Your task to perform on an android device: Open Reddit.com Image 0: 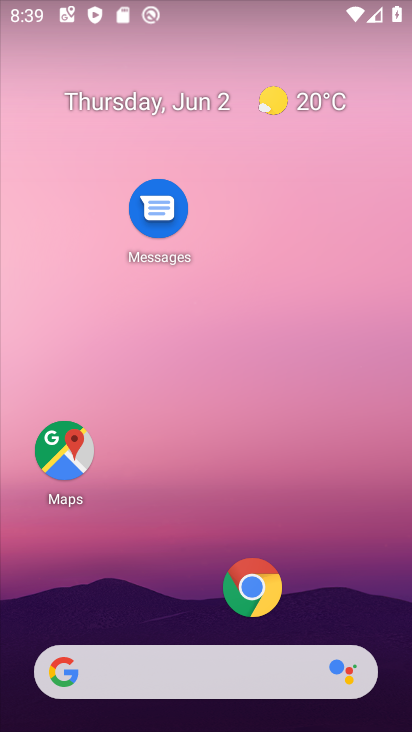
Step 0: click (254, 579)
Your task to perform on an android device: Open Reddit.com Image 1: 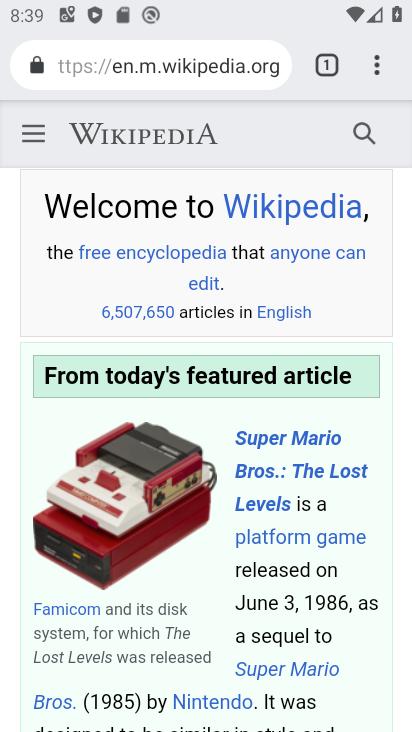
Step 1: click (211, 60)
Your task to perform on an android device: Open Reddit.com Image 2: 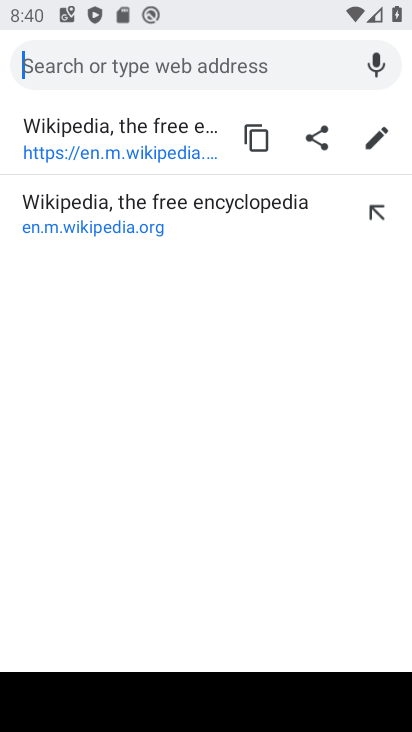
Step 2: type "reddit"
Your task to perform on an android device: Open Reddit.com Image 3: 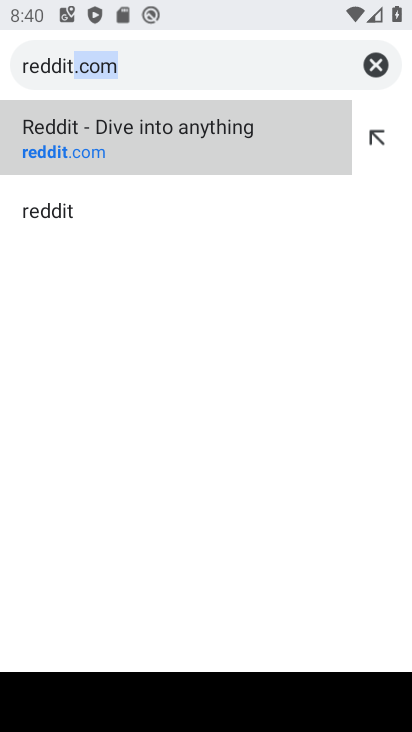
Step 3: click (322, 134)
Your task to perform on an android device: Open Reddit.com Image 4: 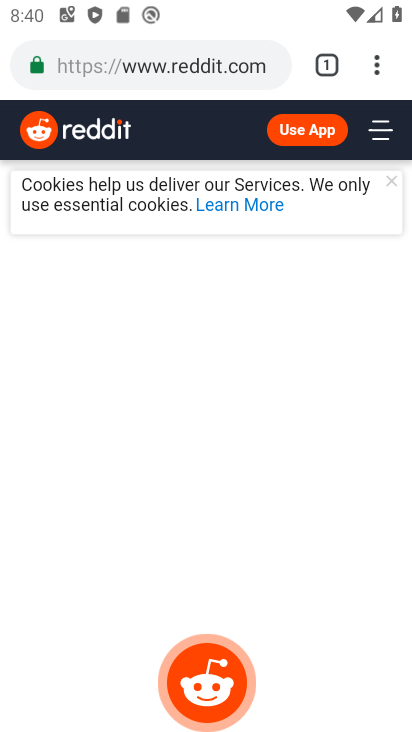
Step 4: task complete